Your task to perform on an android device: find photos in the google photos app Image 0: 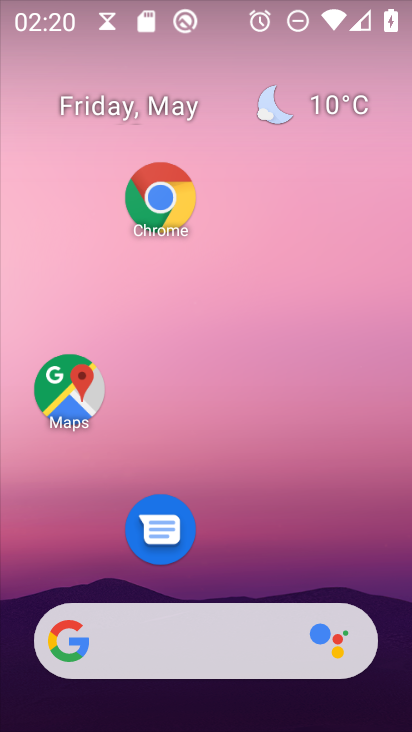
Step 0: drag from (268, 544) to (304, 201)
Your task to perform on an android device: find photos in the google photos app Image 1: 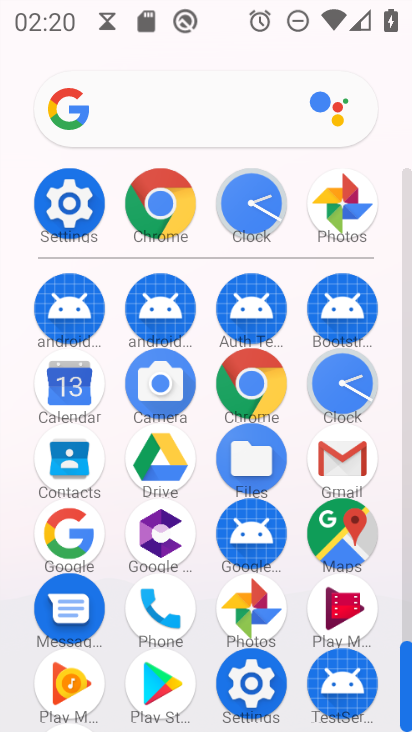
Step 1: click (230, 612)
Your task to perform on an android device: find photos in the google photos app Image 2: 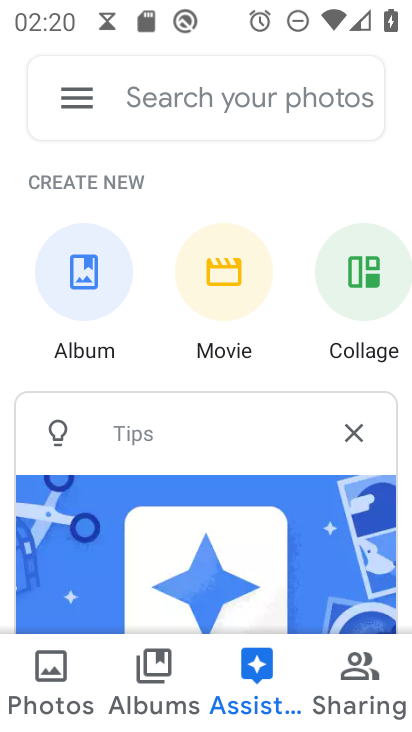
Step 2: drag from (201, 591) to (243, 204)
Your task to perform on an android device: find photos in the google photos app Image 3: 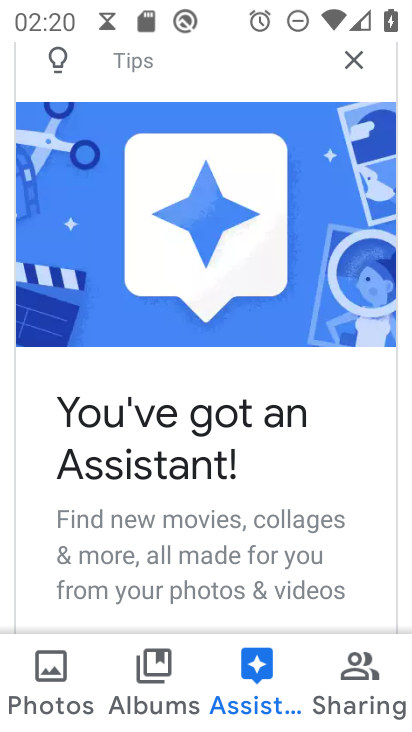
Step 3: click (154, 667)
Your task to perform on an android device: find photos in the google photos app Image 4: 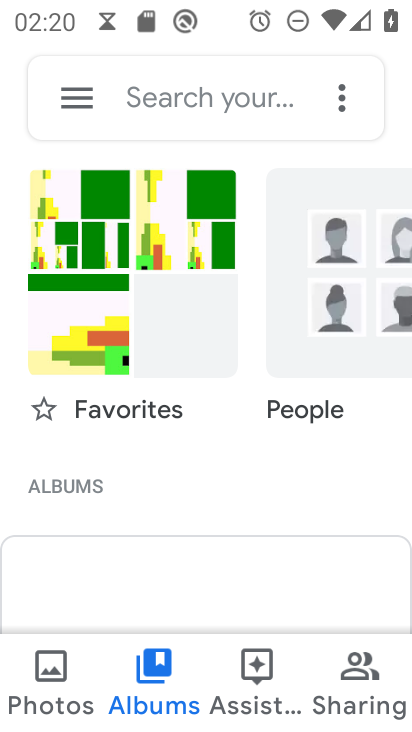
Step 4: click (77, 249)
Your task to perform on an android device: find photos in the google photos app Image 5: 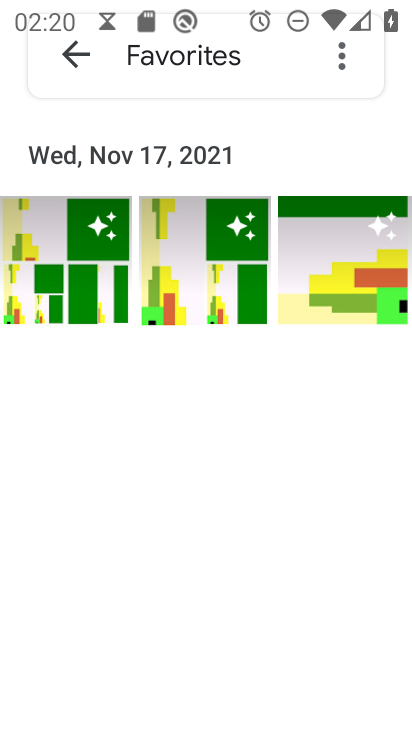
Step 5: task complete